Your task to perform on an android device: toggle wifi Image 0: 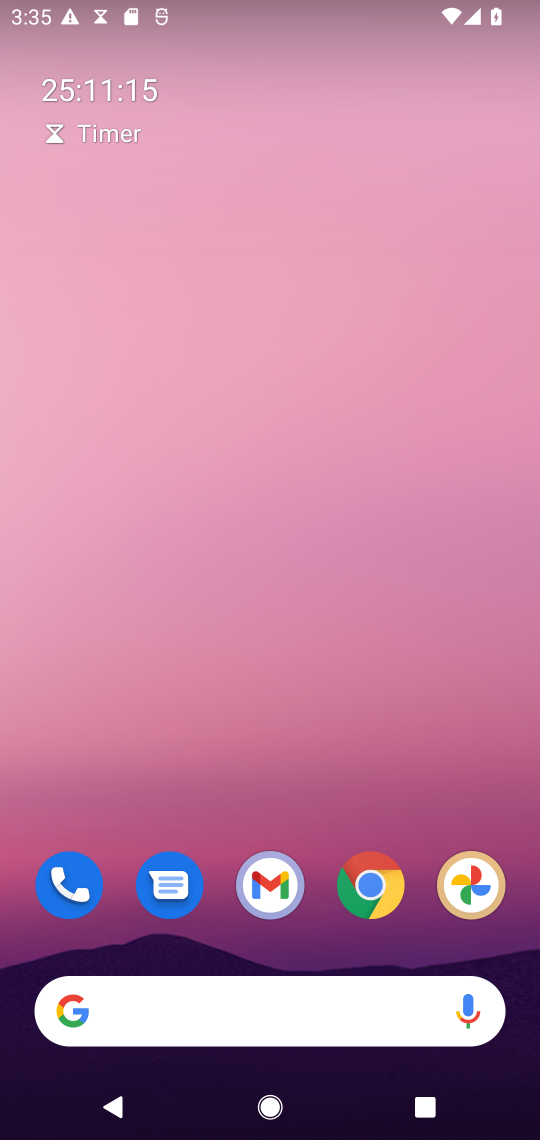
Step 0: drag from (191, 927) to (245, 104)
Your task to perform on an android device: toggle wifi Image 1: 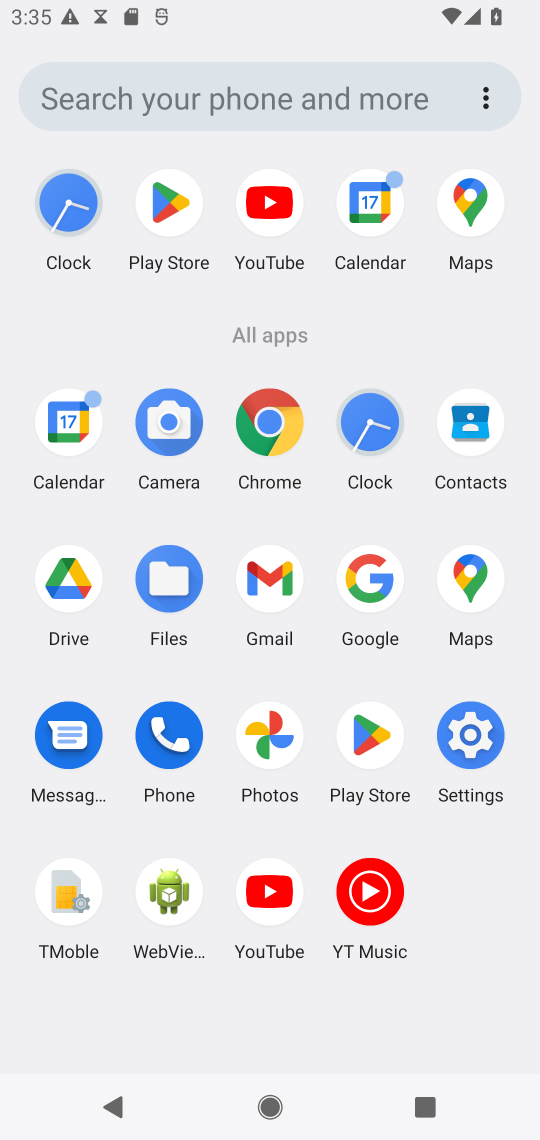
Step 1: click (454, 764)
Your task to perform on an android device: toggle wifi Image 2: 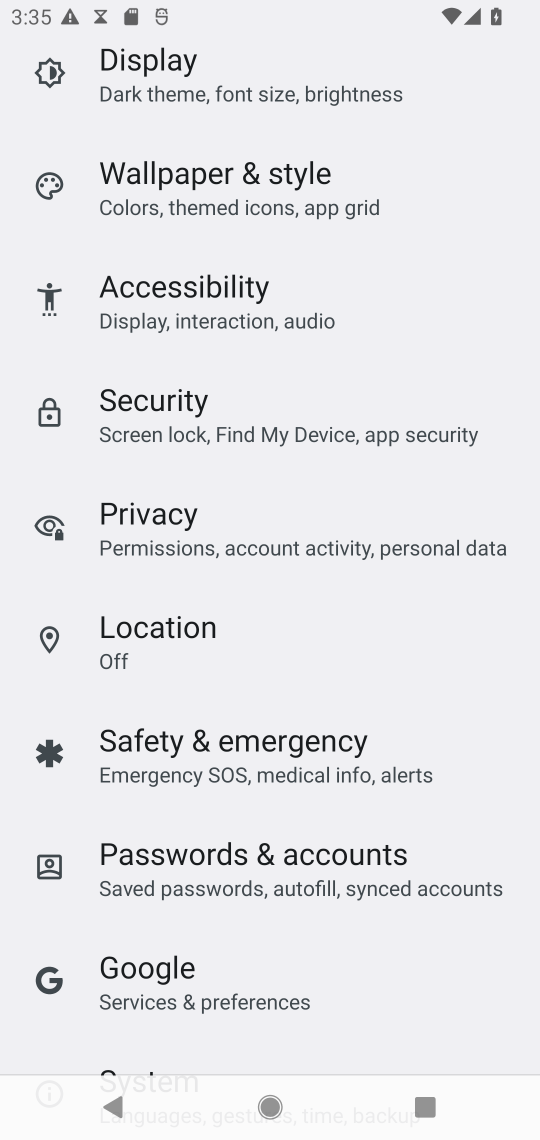
Step 2: drag from (361, 322) to (309, 887)
Your task to perform on an android device: toggle wifi Image 3: 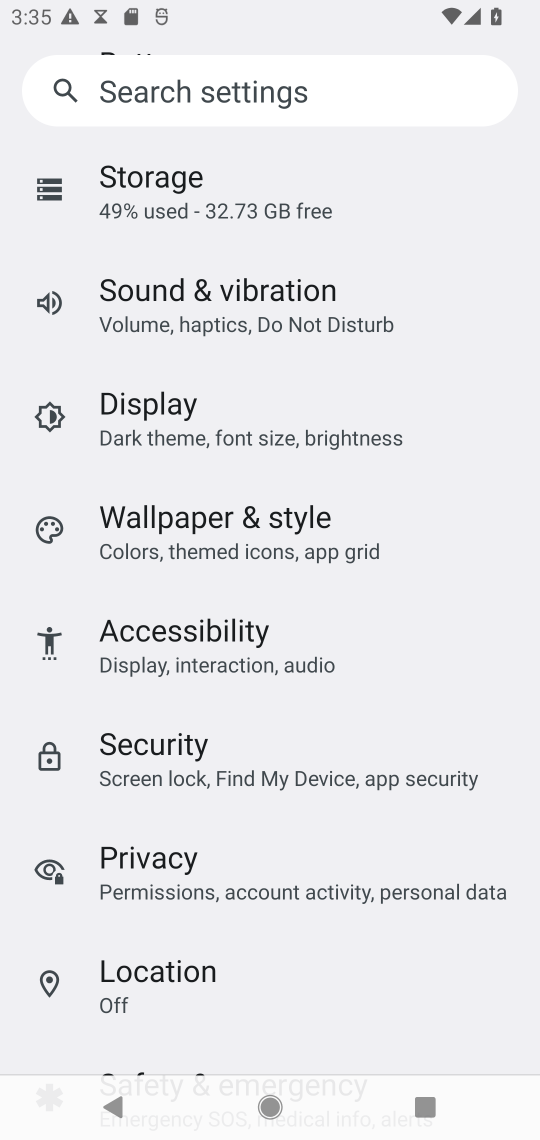
Step 3: drag from (294, 207) to (254, 860)
Your task to perform on an android device: toggle wifi Image 4: 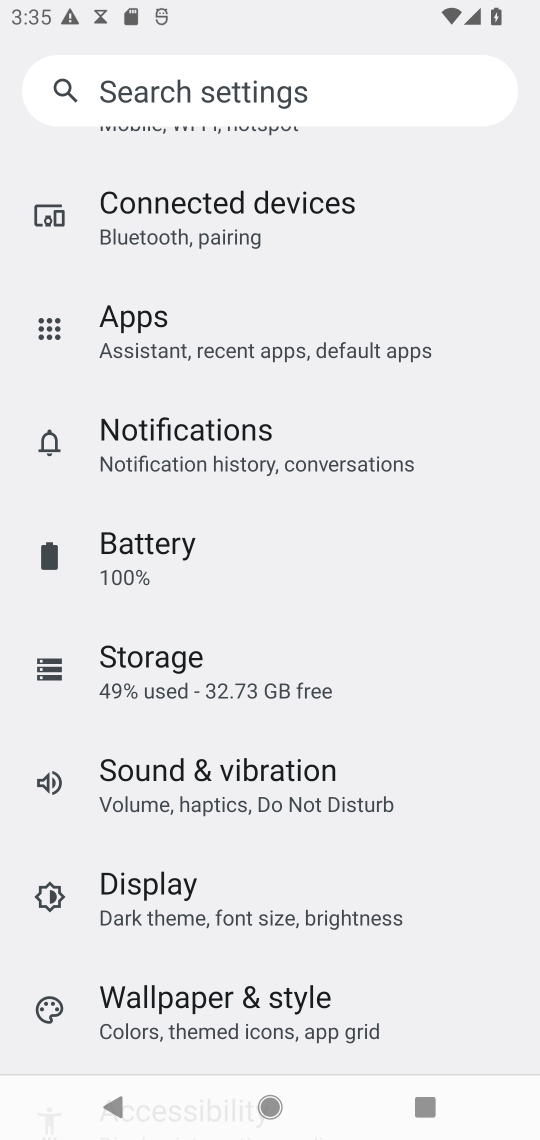
Step 4: drag from (354, 264) to (313, 783)
Your task to perform on an android device: toggle wifi Image 5: 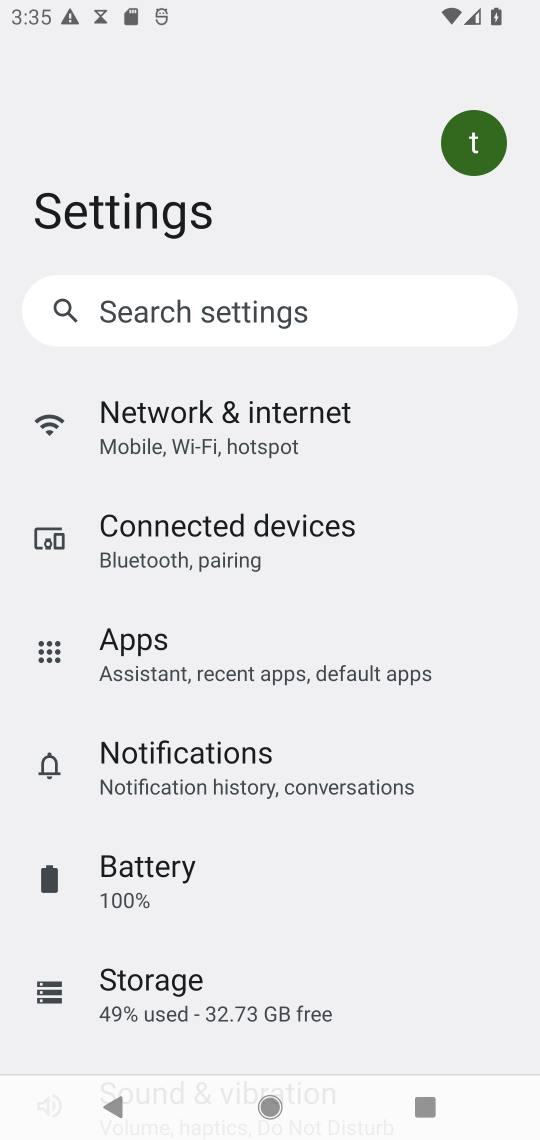
Step 5: click (199, 421)
Your task to perform on an android device: toggle wifi Image 6: 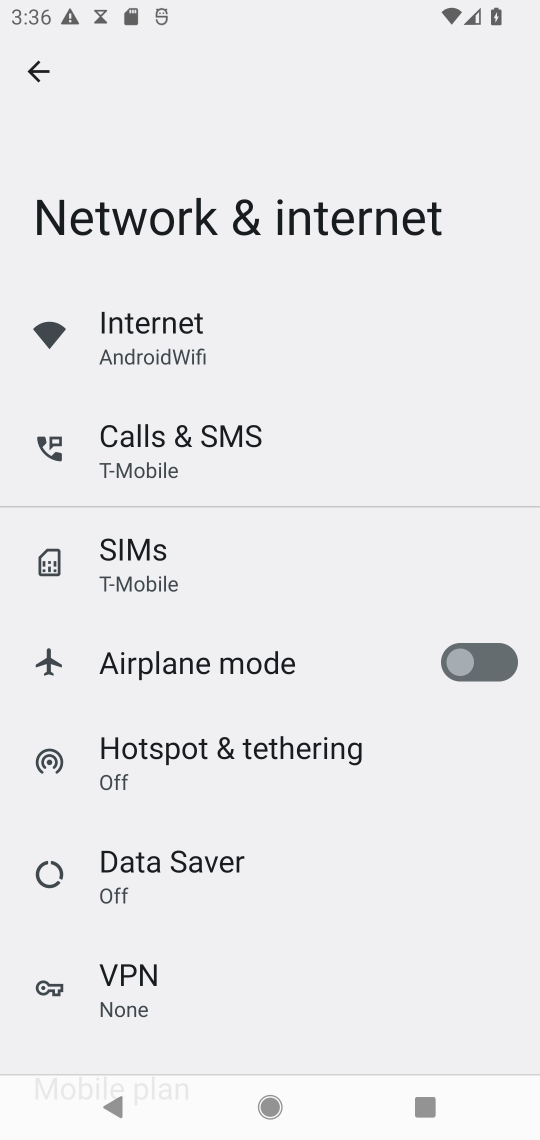
Step 6: click (156, 321)
Your task to perform on an android device: toggle wifi Image 7: 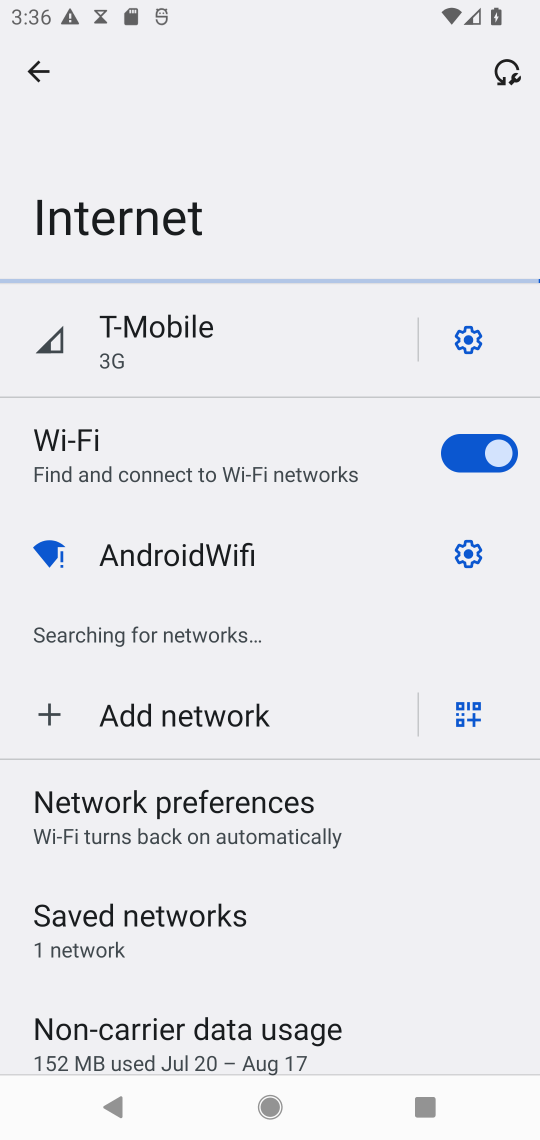
Step 7: click (456, 461)
Your task to perform on an android device: toggle wifi Image 8: 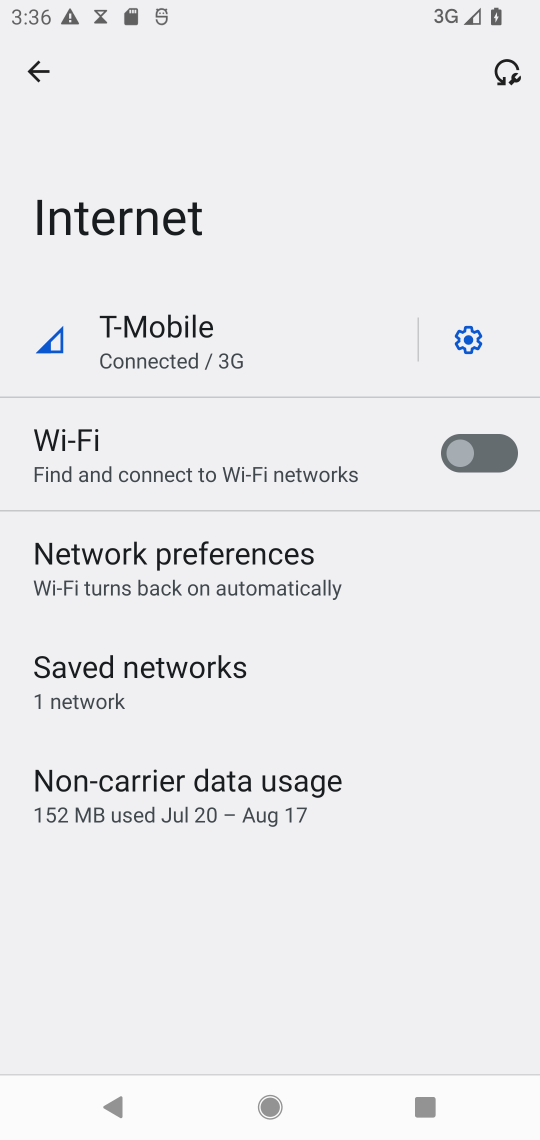
Step 8: task complete